Your task to perform on an android device: How do I get to the nearest Macy's? Image 0: 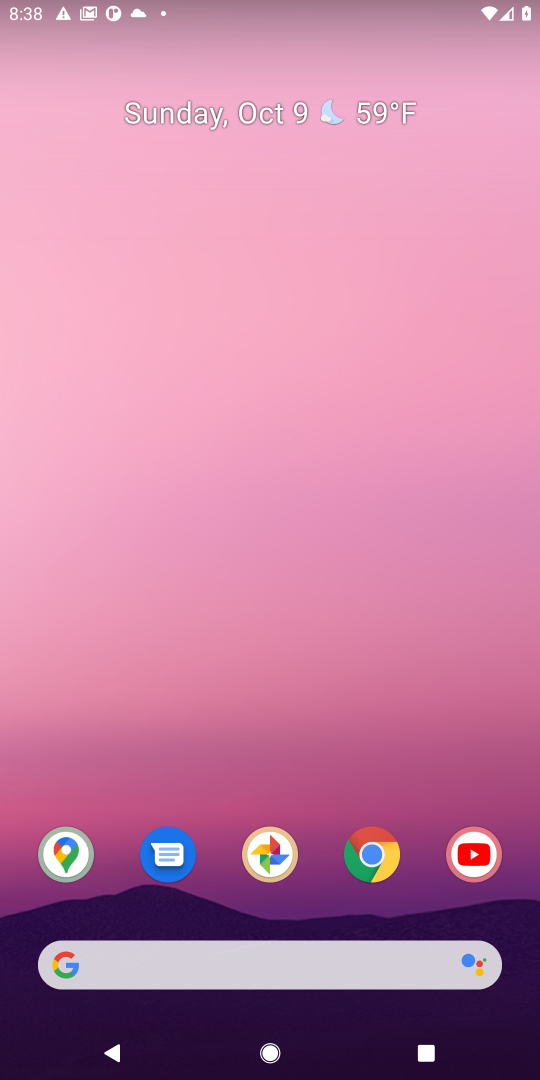
Step 0: drag from (341, 884) to (306, 137)
Your task to perform on an android device: How do I get to the nearest Macy's? Image 1: 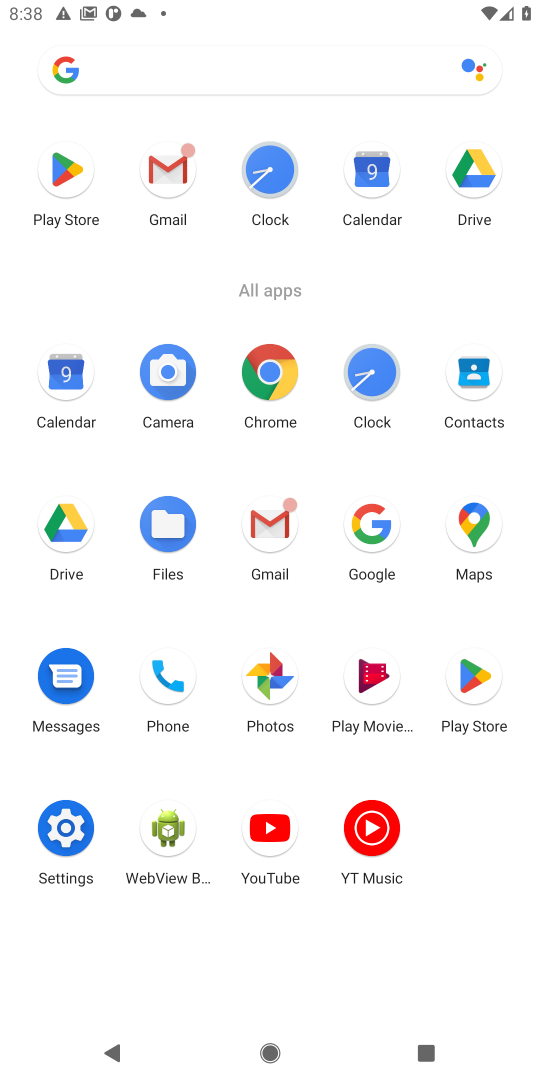
Step 1: click (278, 371)
Your task to perform on an android device: How do I get to the nearest Macy's? Image 2: 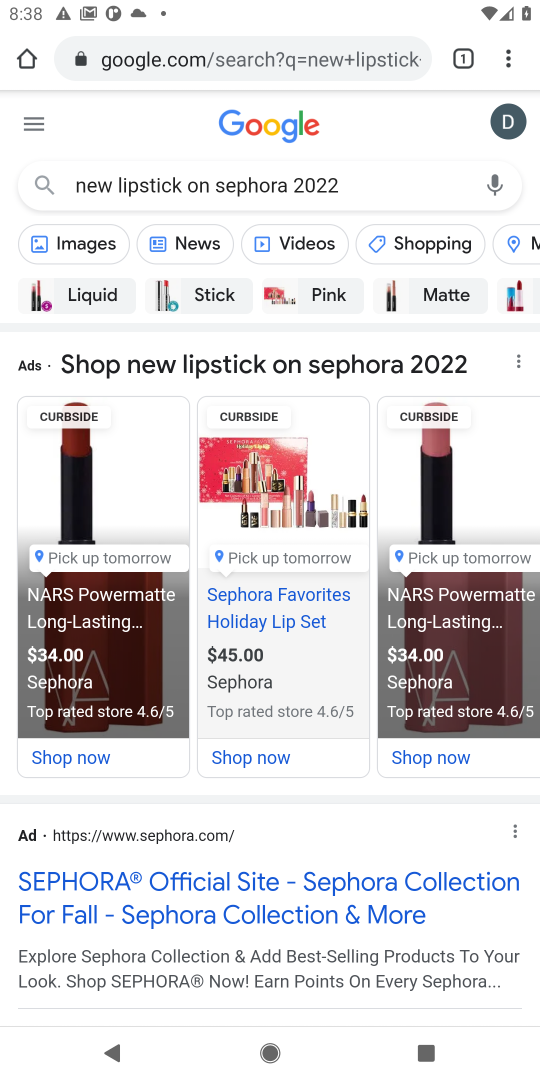
Step 2: click (389, 181)
Your task to perform on an android device: How do I get to the nearest Macy's? Image 3: 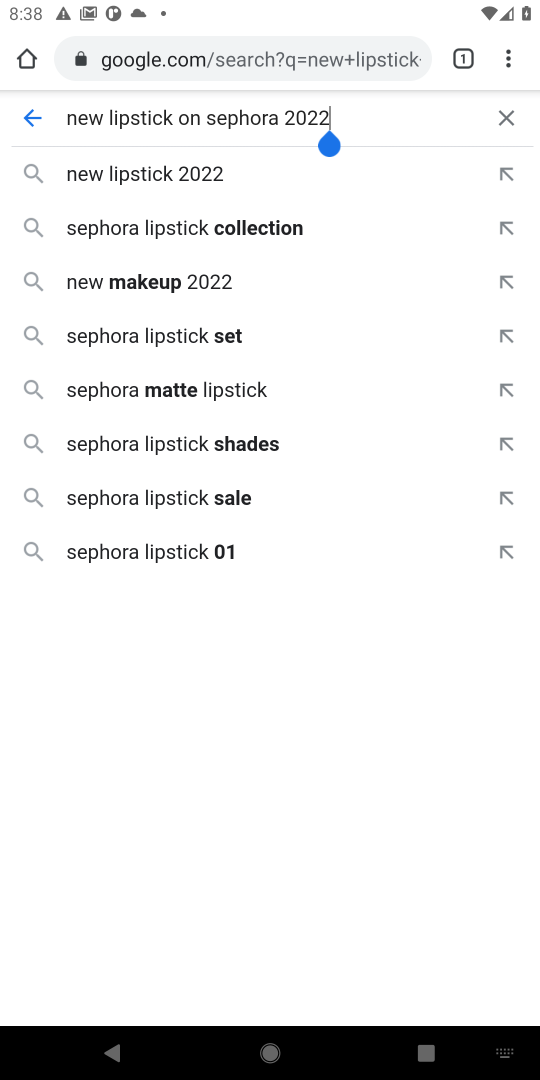
Step 3: click (504, 109)
Your task to perform on an android device: How do I get to the nearest Macy's? Image 4: 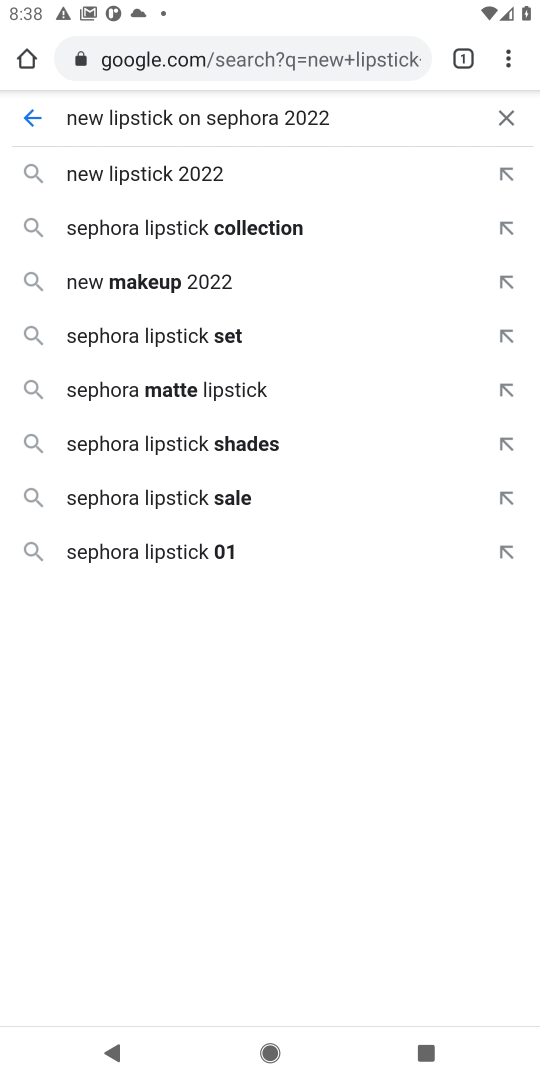
Step 4: click (502, 115)
Your task to perform on an android device: How do I get to the nearest Macy's? Image 5: 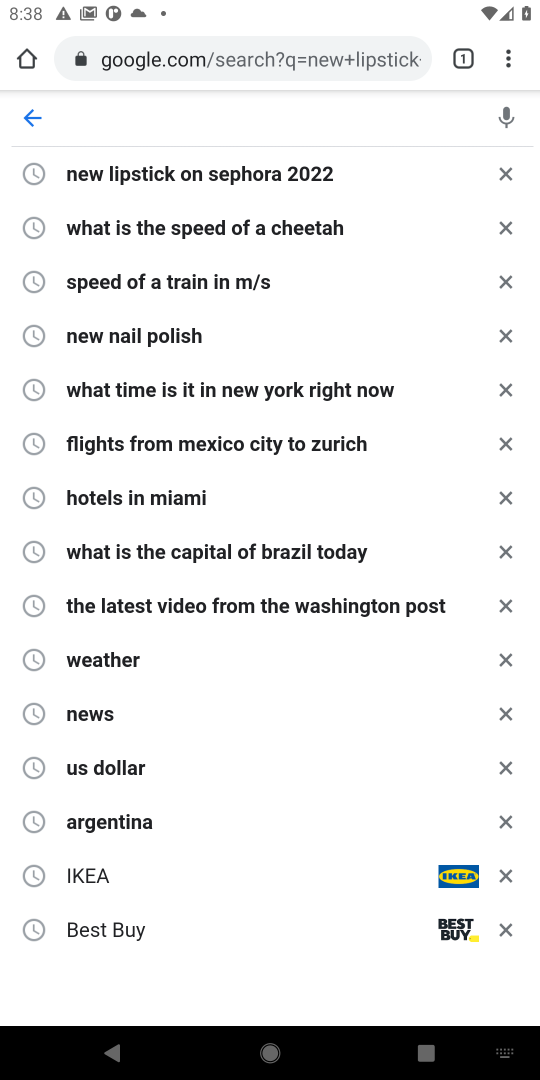
Step 5: type "How do I get to the nearest Macy's?"
Your task to perform on an android device: How do I get to the nearest Macy's? Image 6: 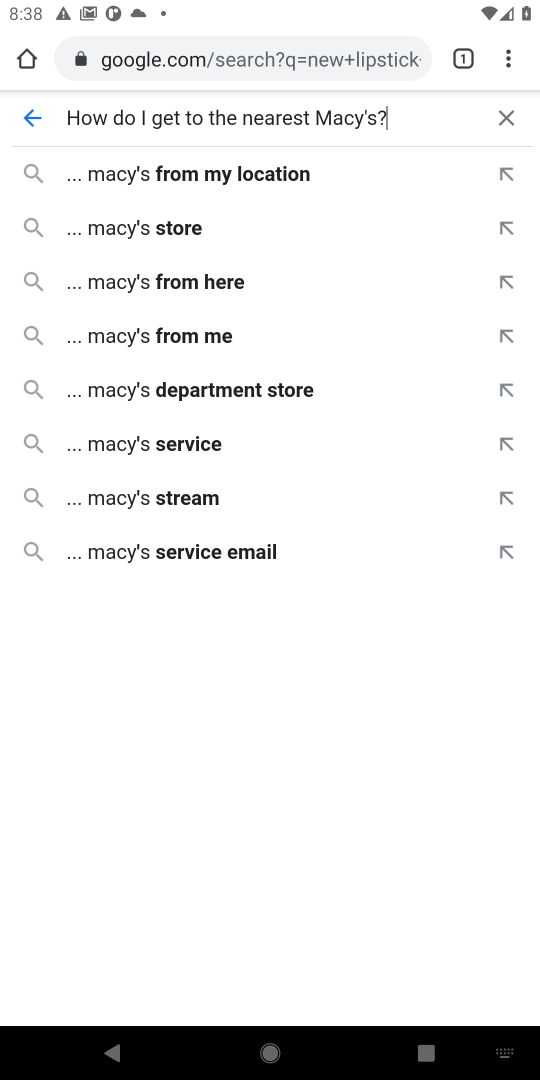
Step 6: type ""
Your task to perform on an android device: How do I get to the nearest Macy's? Image 7: 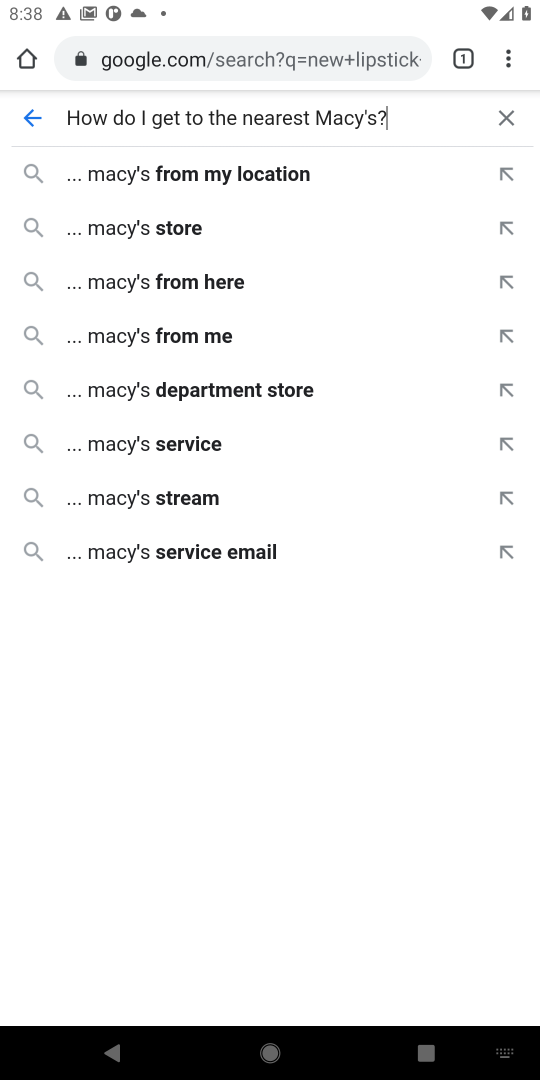
Step 7: click (259, 123)
Your task to perform on an android device: How do I get to the nearest Macy's? Image 8: 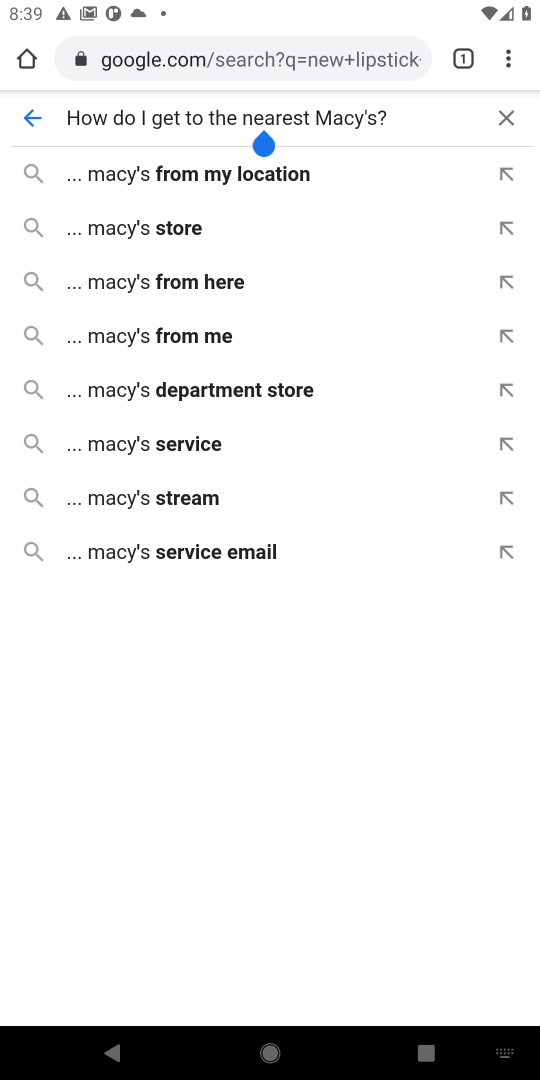
Step 8: click (163, 226)
Your task to perform on an android device: How do I get to the nearest Macy's? Image 9: 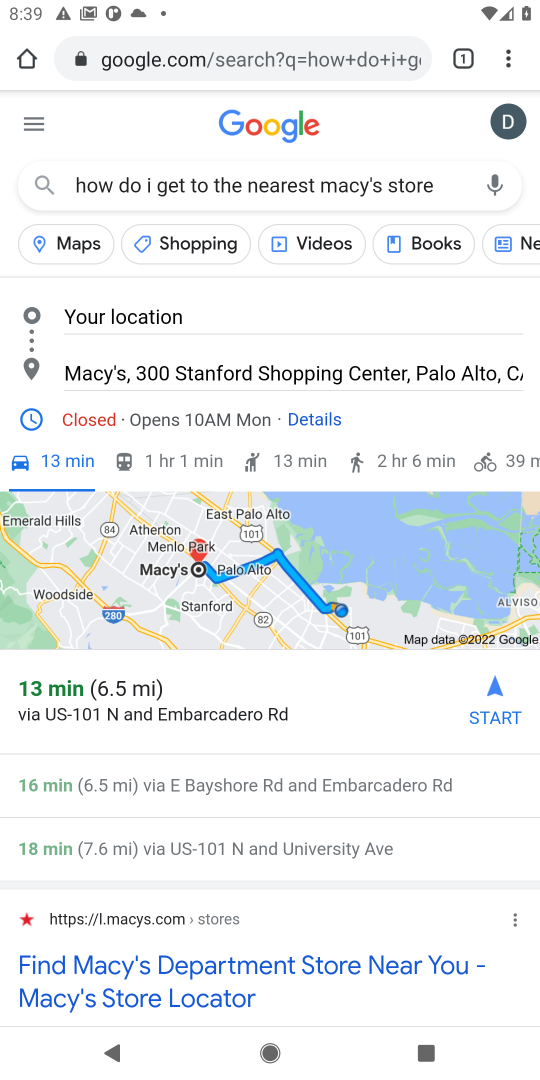
Step 9: task complete